Your task to perform on an android device: find snoozed emails in the gmail app Image 0: 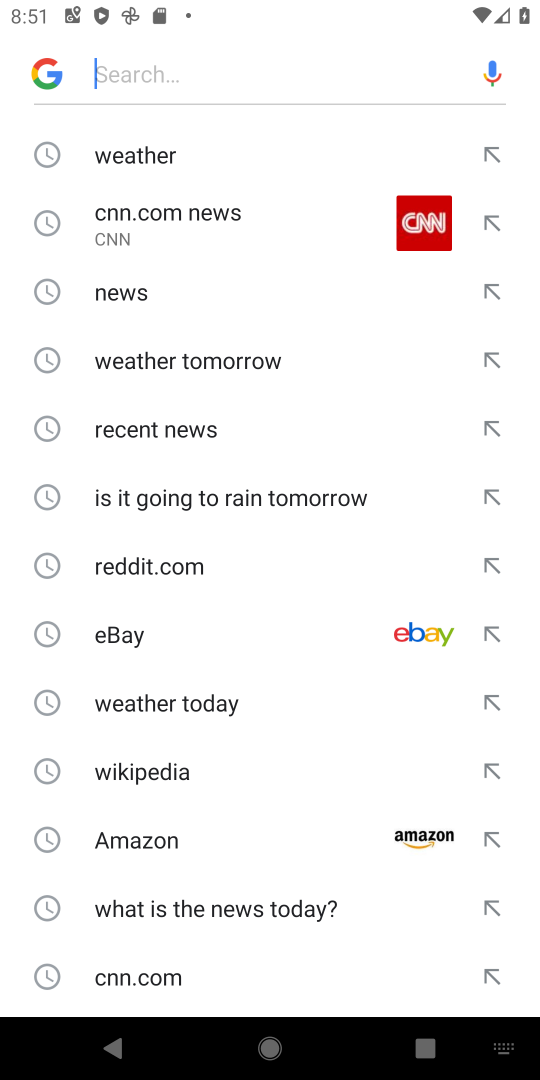
Step 0: press home button
Your task to perform on an android device: find snoozed emails in the gmail app Image 1: 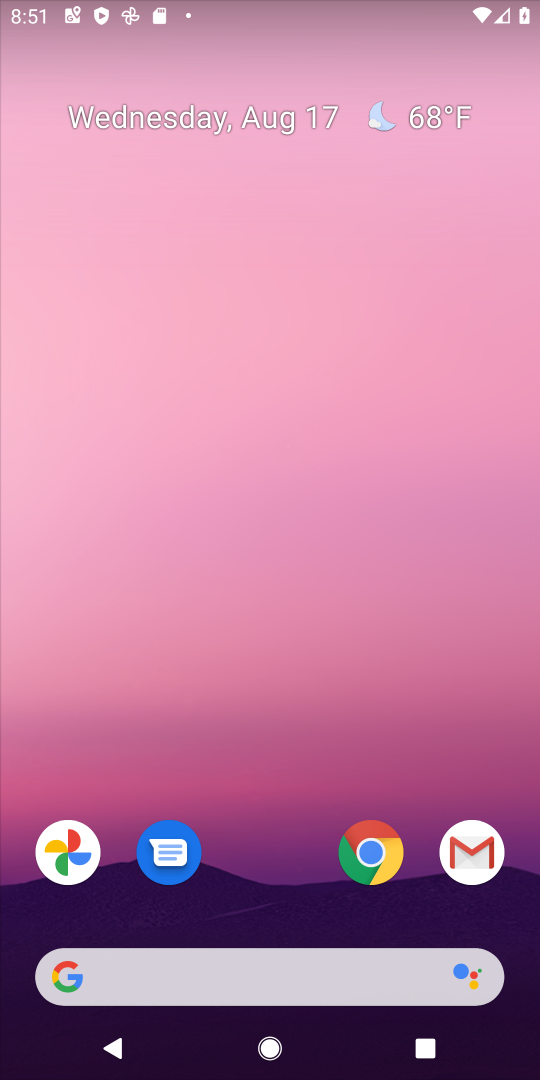
Step 1: click (471, 849)
Your task to perform on an android device: find snoozed emails in the gmail app Image 2: 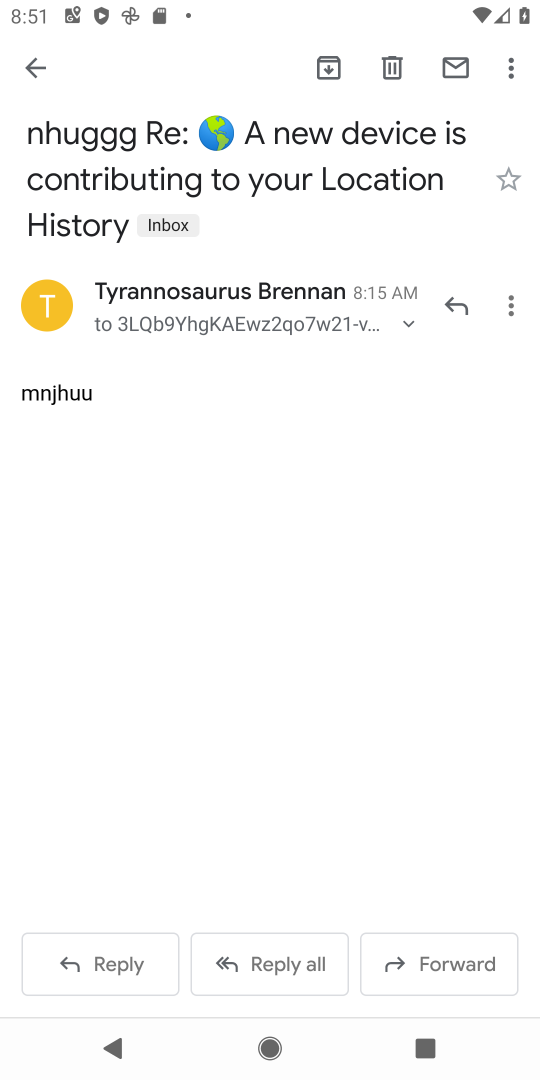
Step 2: click (42, 66)
Your task to perform on an android device: find snoozed emails in the gmail app Image 3: 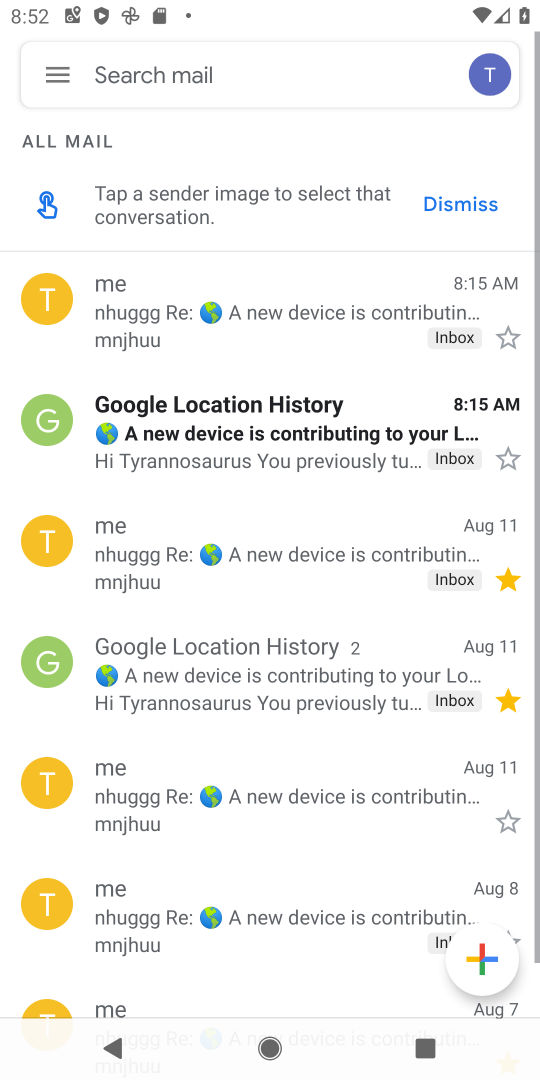
Step 3: click (54, 70)
Your task to perform on an android device: find snoozed emails in the gmail app Image 4: 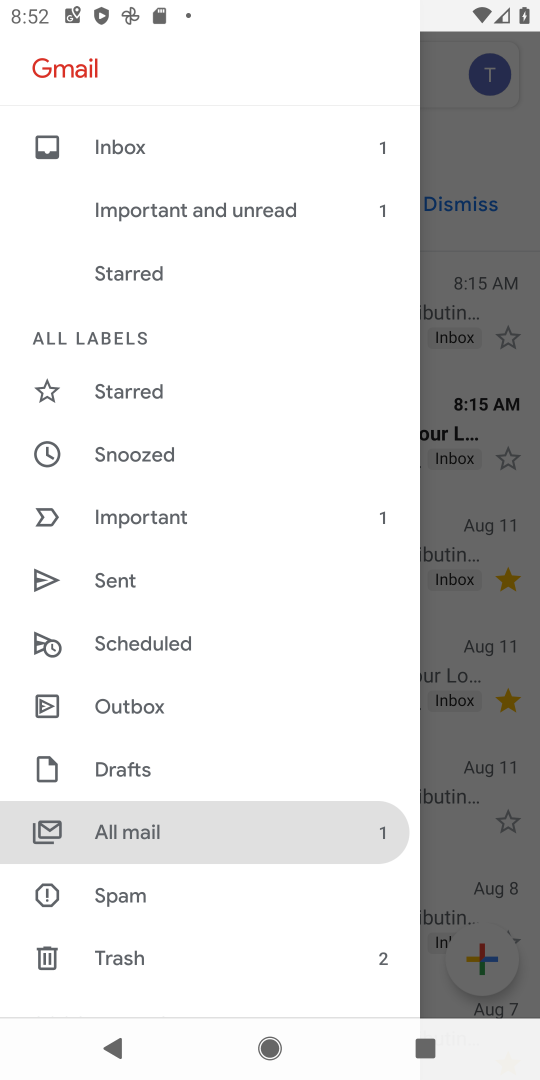
Step 4: click (132, 450)
Your task to perform on an android device: find snoozed emails in the gmail app Image 5: 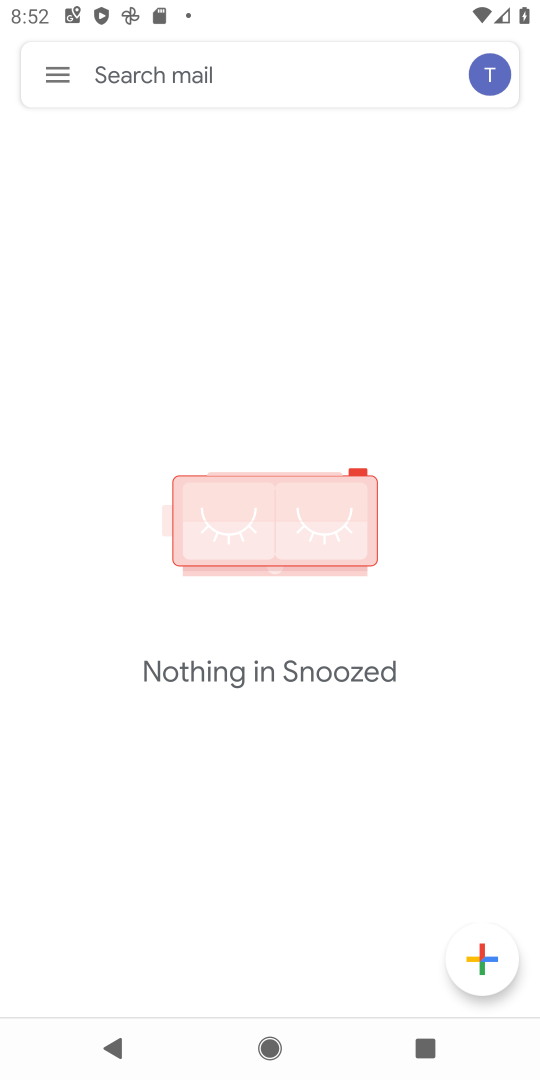
Step 5: task complete